Your task to perform on an android device: empty trash in the gmail app Image 0: 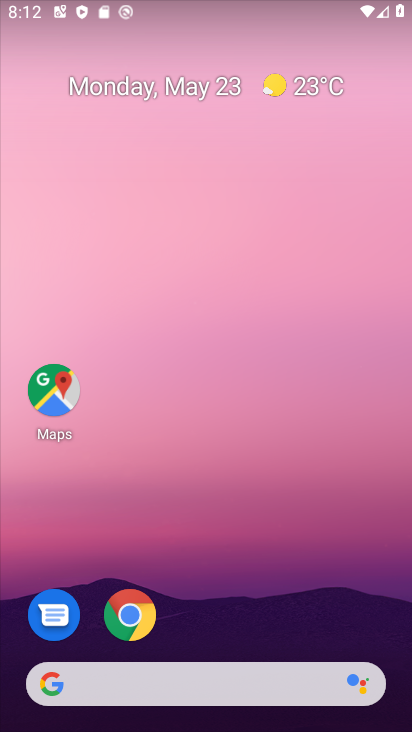
Step 0: drag from (244, 585) to (214, 105)
Your task to perform on an android device: empty trash in the gmail app Image 1: 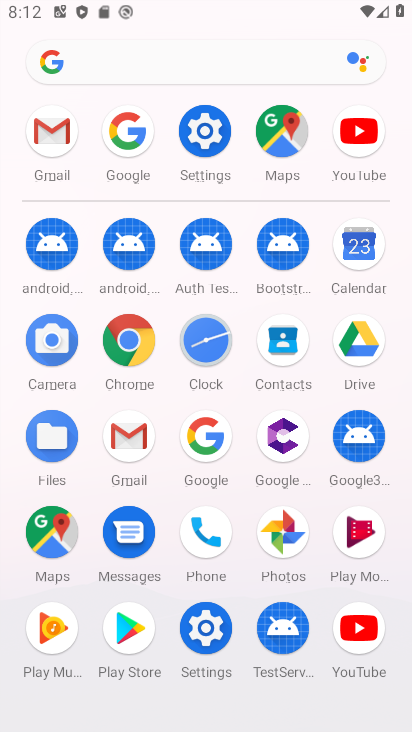
Step 1: click (49, 132)
Your task to perform on an android device: empty trash in the gmail app Image 2: 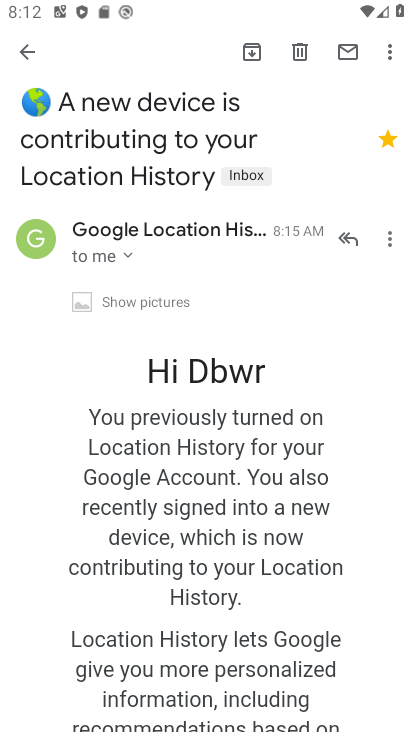
Step 2: press back button
Your task to perform on an android device: empty trash in the gmail app Image 3: 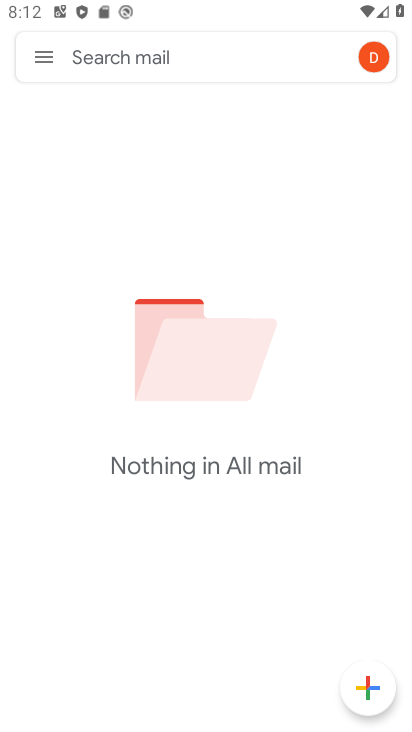
Step 3: click (40, 58)
Your task to perform on an android device: empty trash in the gmail app Image 4: 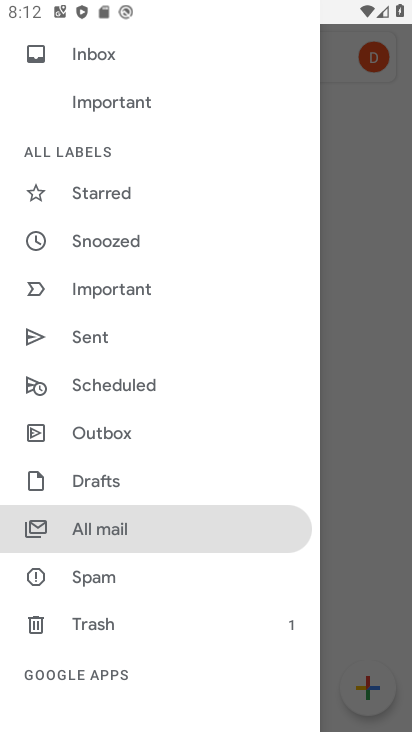
Step 4: drag from (114, 446) to (133, 379)
Your task to perform on an android device: empty trash in the gmail app Image 5: 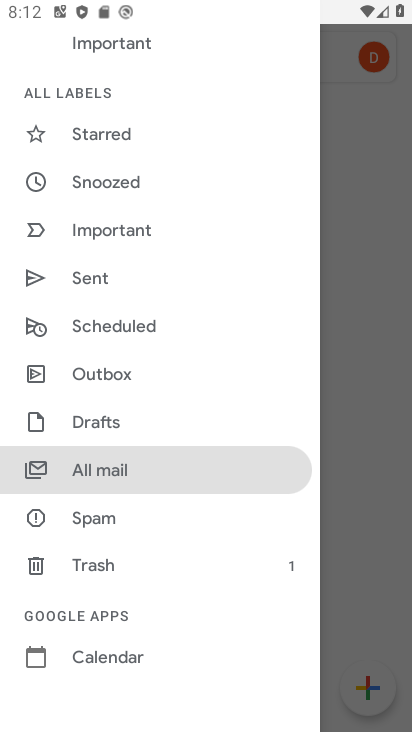
Step 5: drag from (89, 529) to (138, 444)
Your task to perform on an android device: empty trash in the gmail app Image 6: 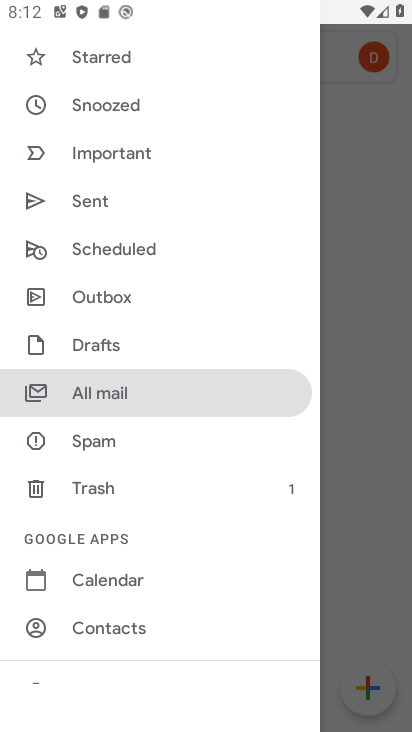
Step 6: drag from (101, 557) to (130, 482)
Your task to perform on an android device: empty trash in the gmail app Image 7: 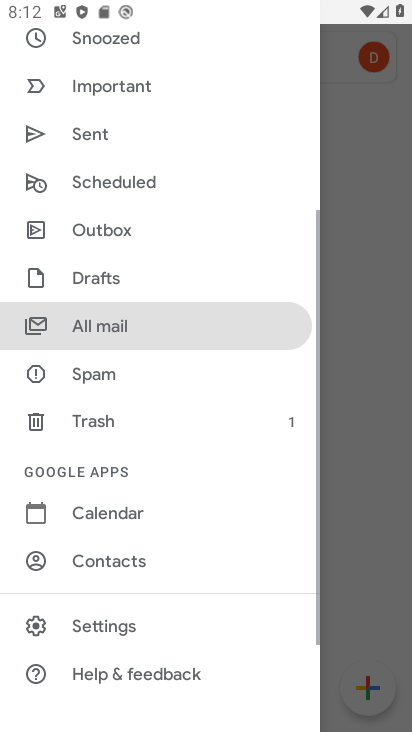
Step 7: drag from (105, 608) to (151, 540)
Your task to perform on an android device: empty trash in the gmail app Image 8: 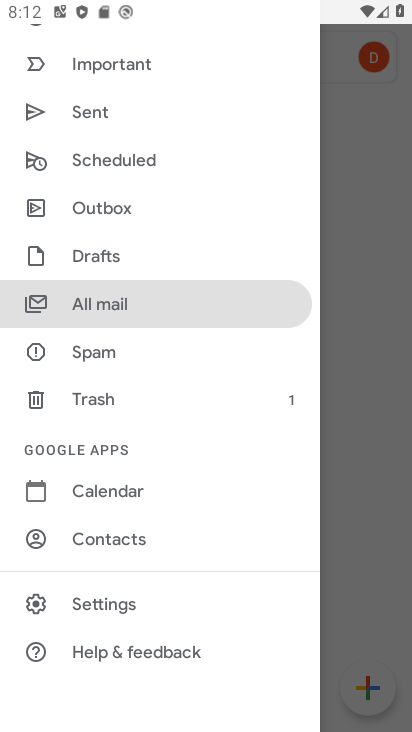
Step 8: click (94, 394)
Your task to perform on an android device: empty trash in the gmail app Image 9: 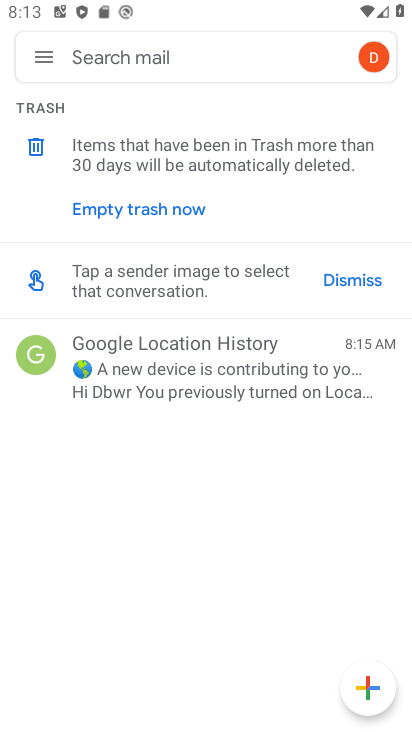
Step 9: click (39, 151)
Your task to perform on an android device: empty trash in the gmail app Image 10: 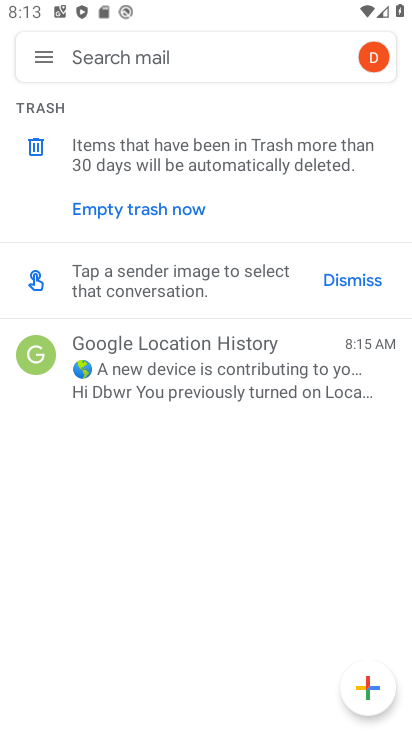
Step 10: click (142, 215)
Your task to perform on an android device: empty trash in the gmail app Image 11: 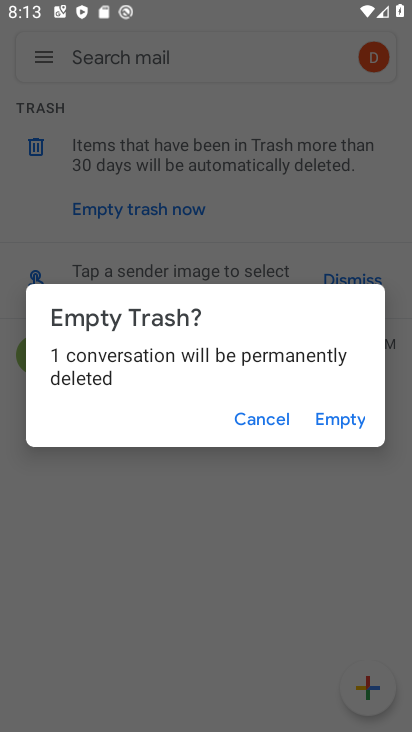
Step 11: click (347, 425)
Your task to perform on an android device: empty trash in the gmail app Image 12: 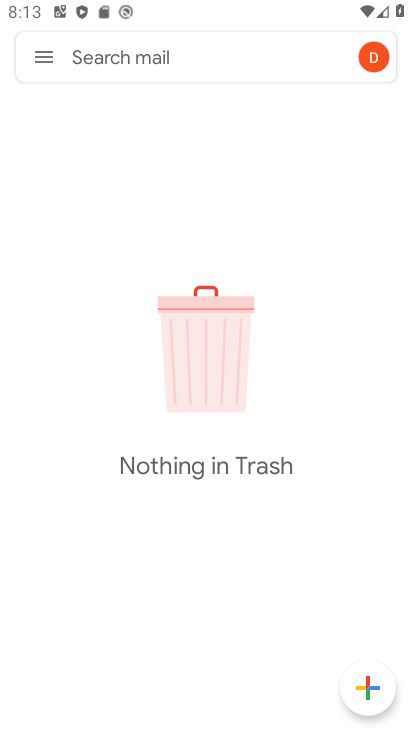
Step 12: task complete